Your task to perform on an android device: change notifications settings Image 0: 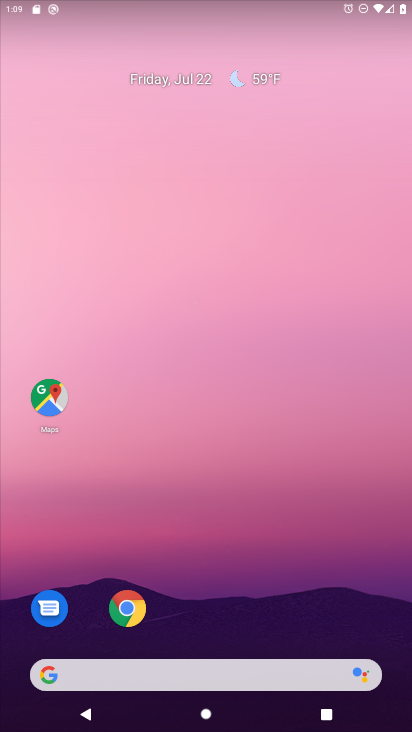
Step 0: drag from (316, 607) to (96, 8)
Your task to perform on an android device: change notifications settings Image 1: 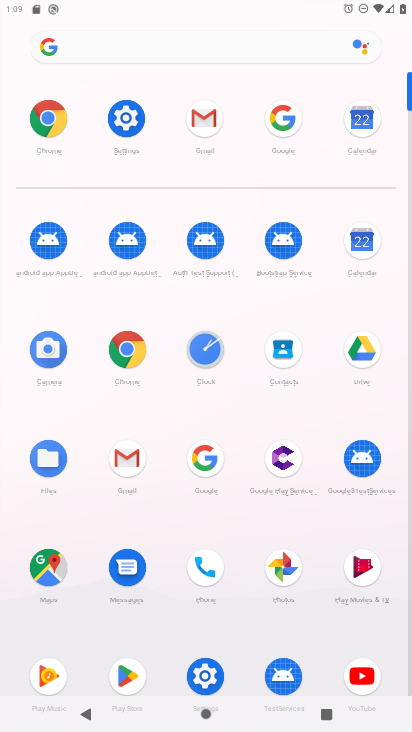
Step 1: click (202, 681)
Your task to perform on an android device: change notifications settings Image 2: 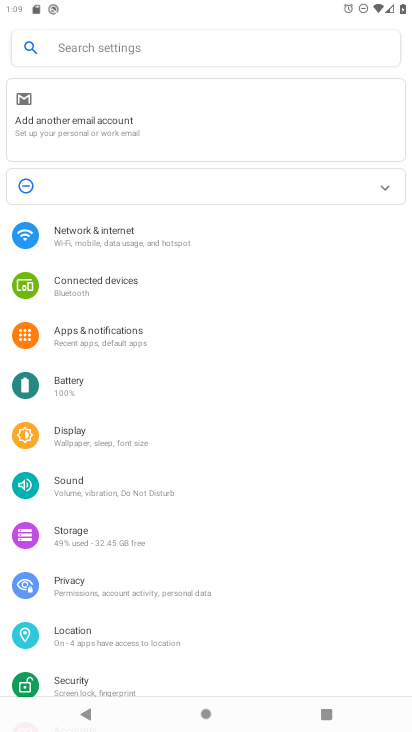
Step 2: click (148, 345)
Your task to perform on an android device: change notifications settings Image 3: 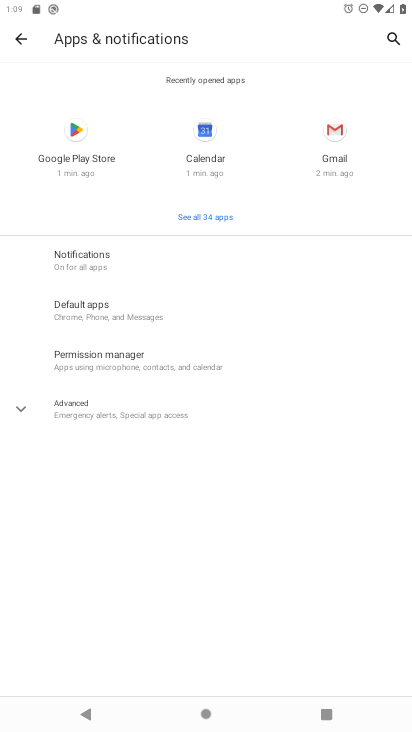
Step 3: click (98, 242)
Your task to perform on an android device: change notifications settings Image 4: 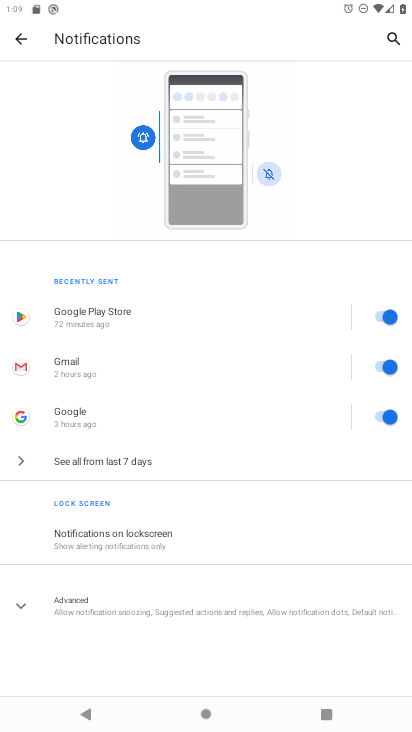
Step 4: click (68, 607)
Your task to perform on an android device: change notifications settings Image 5: 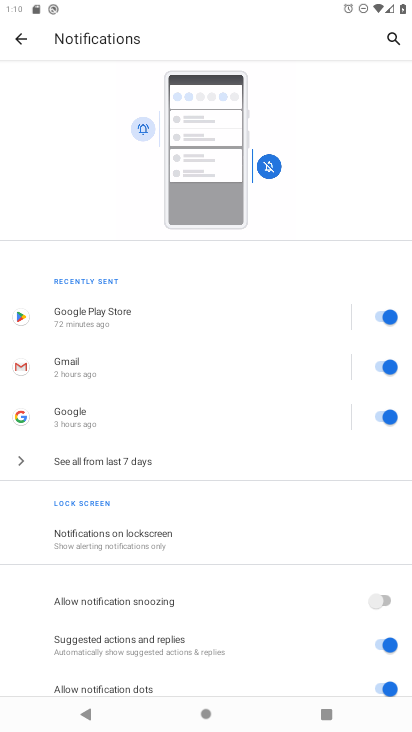
Step 5: task complete